Your task to perform on an android device: Open my contact list Image 0: 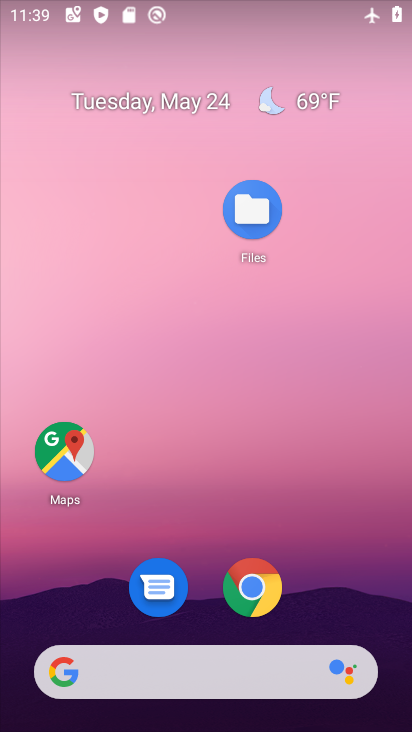
Step 0: drag from (341, 586) to (109, 181)
Your task to perform on an android device: Open my contact list Image 1: 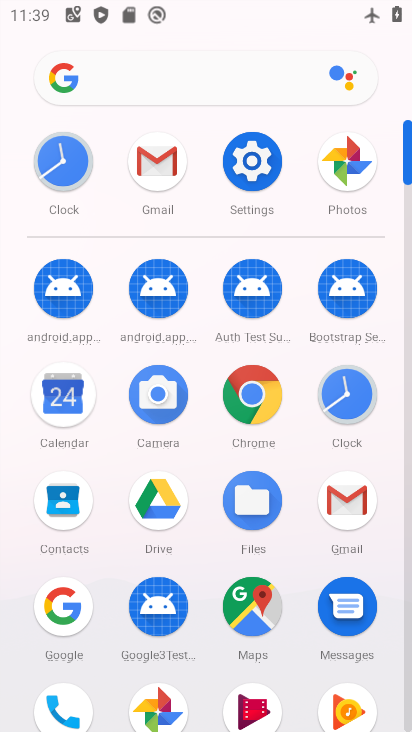
Step 1: click (72, 512)
Your task to perform on an android device: Open my contact list Image 2: 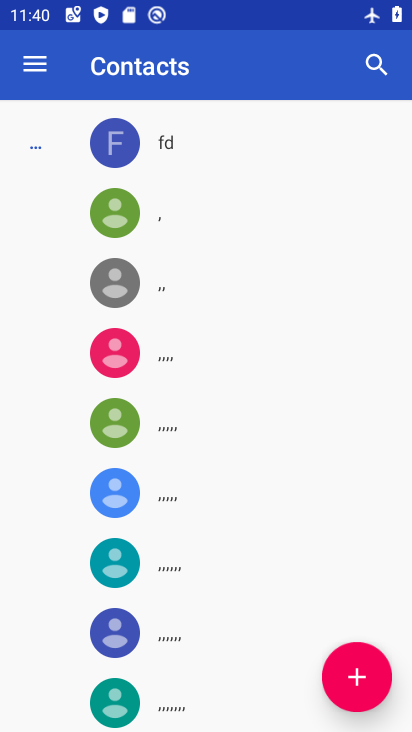
Step 2: task complete